Your task to perform on an android device: star an email in the gmail app Image 0: 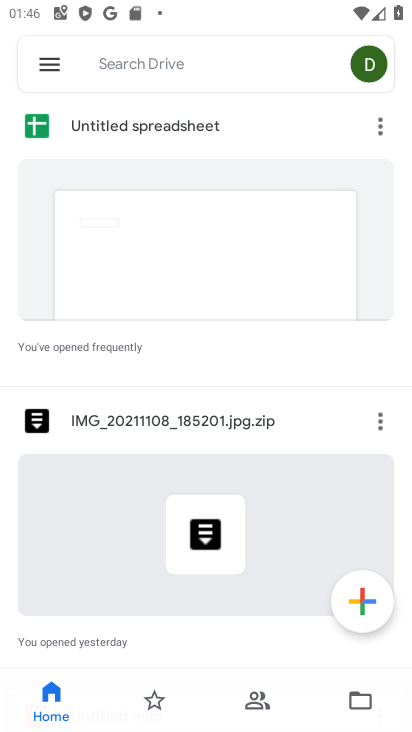
Step 0: drag from (263, 575) to (363, 238)
Your task to perform on an android device: star an email in the gmail app Image 1: 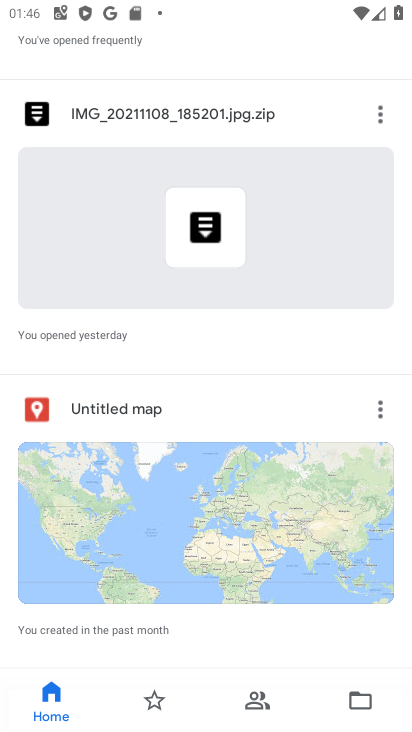
Step 1: drag from (276, 318) to (211, 725)
Your task to perform on an android device: star an email in the gmail app Image 2: 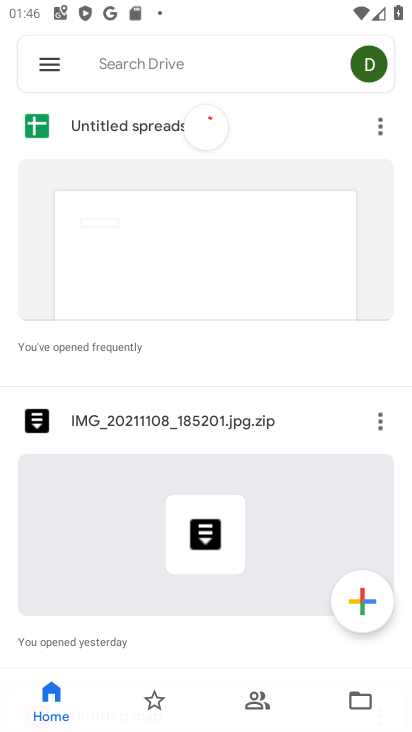
Step 2: click (49, 75)
Your task to perform on an android device: star an email in the gmail app Image 3: 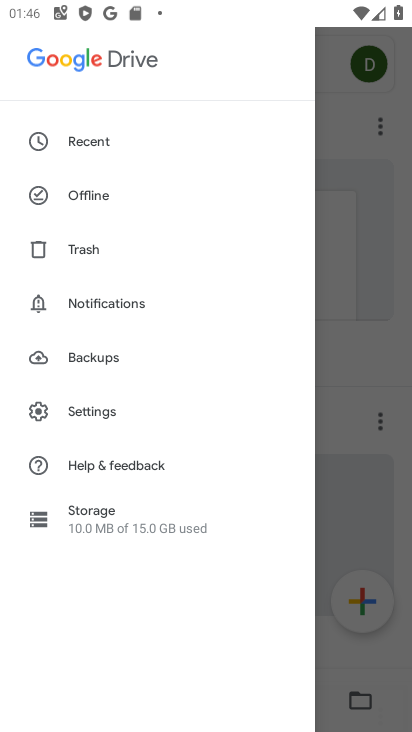
Step 3: press home button
Your task to perform on an android device: star an email in the gmail app Image 4: 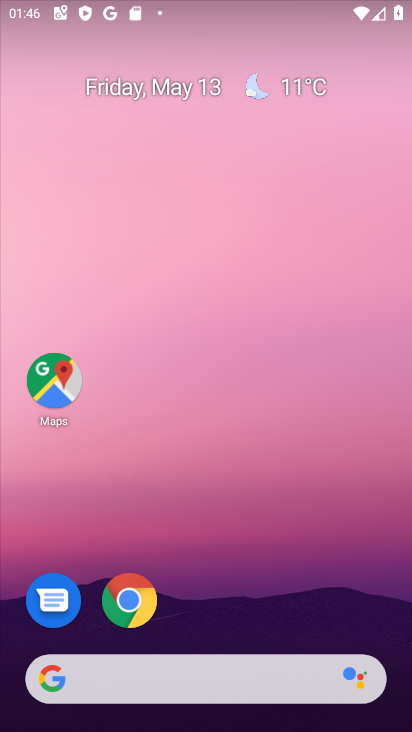
Step 4: drag from (228, 537) to (260, 1)
Your task to perform on an android device: star an email in the gmail app Image 5: 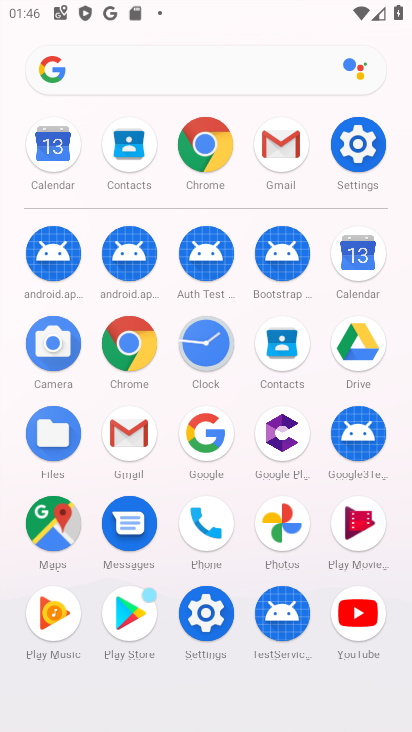
Step 5: click (125, 428)
Your task to perform on an android device: star an email in the gmail app Image 6: 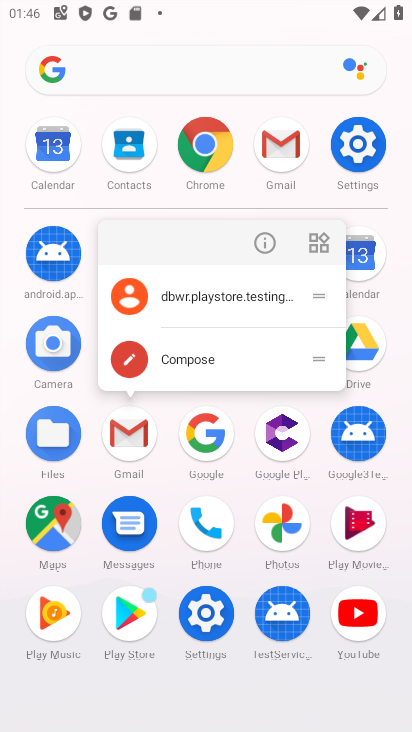
Step 6: click (185, 283)
Your task to perform on an android device: star an email in the gmail app Image 7: 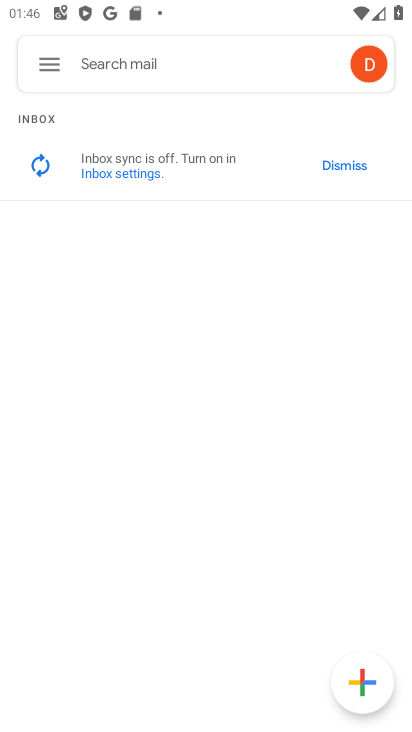
Step 7: click (57, 61)
Your task to perform on an android device: star an email in the gmail app Image 8: 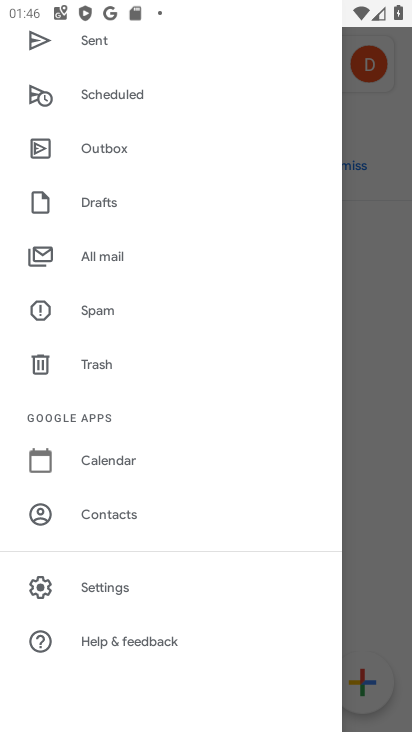
Step 8: drag from (162, 542) to (201, 344)
Your task to perform on an android device: star an email in the gmail app Image 9: 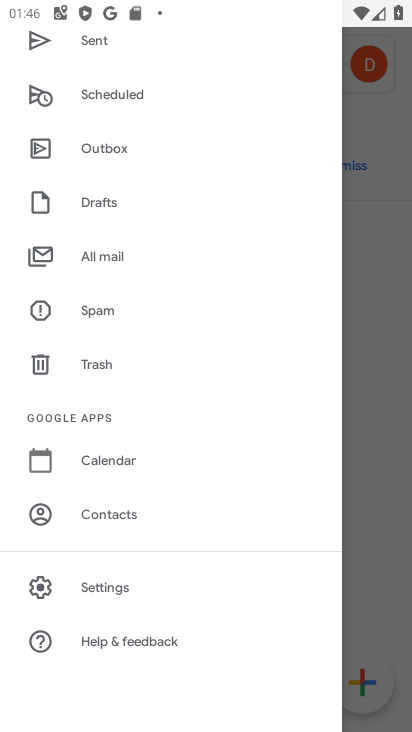
Step 9: drag from (150, 171) to (233, 731)
Your task to perform on an android device: star an email in the gmail app Image 10: 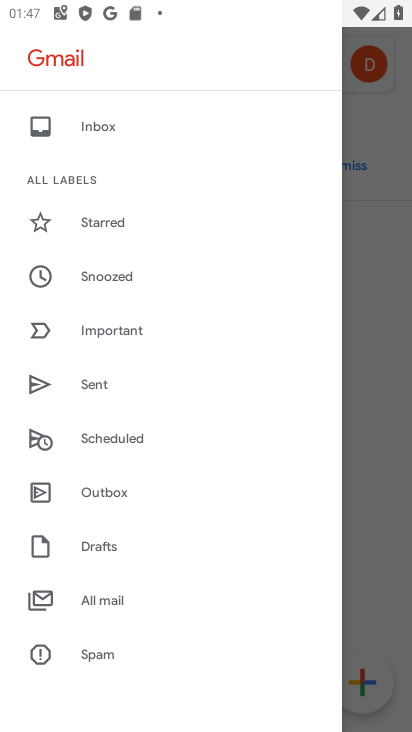
Step 10: drag from (152, 162) to (153, 591)
Your task to perform on an android device: star an email in the gmail app Image 11: 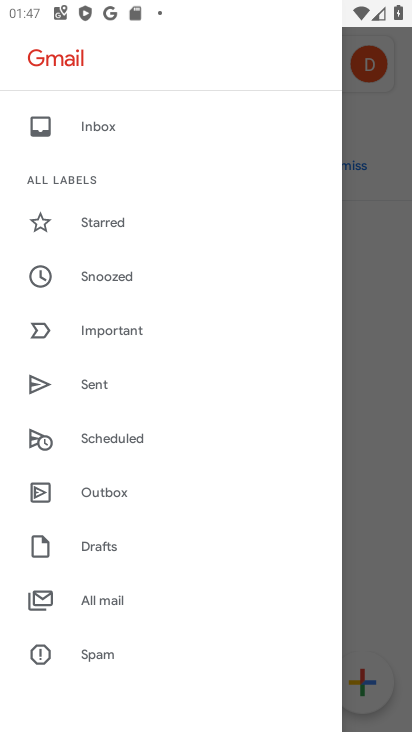
Step 11: click (116, 226)
Your task to perform on an android device: star an email in the gmail app Image 12: 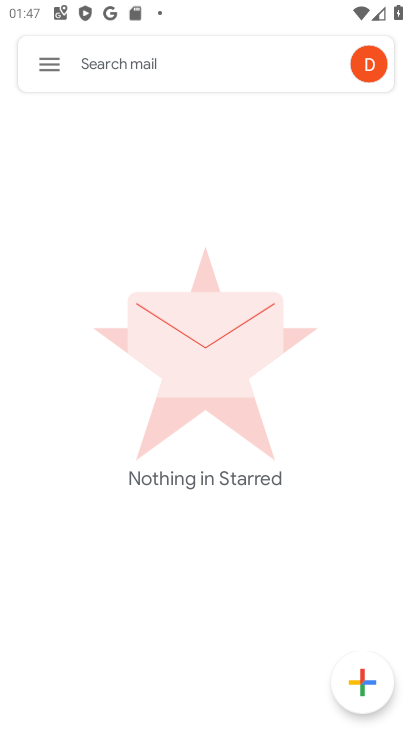
Step 12: task complete